Your task to perform on an android device: When is my next meeting? Image 0: 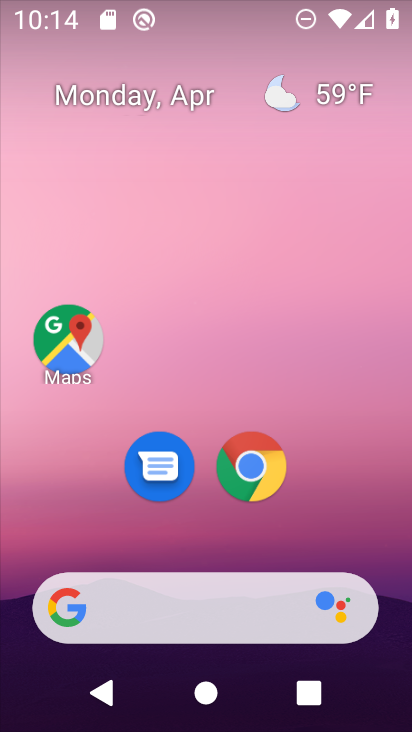
Step 0: drag from (129, 468) to (191, 25)
Your task to perform on an android device: When is my next meeting? Image 1: 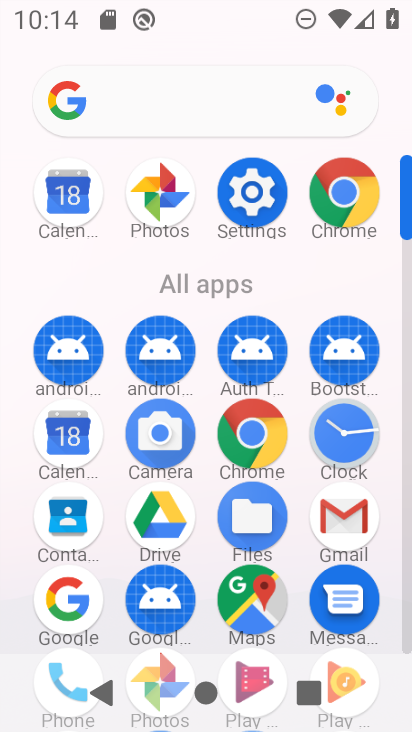
Step 1: click (76, 183)
Your task to perform on an android device: When is my next meeting? Image 2: 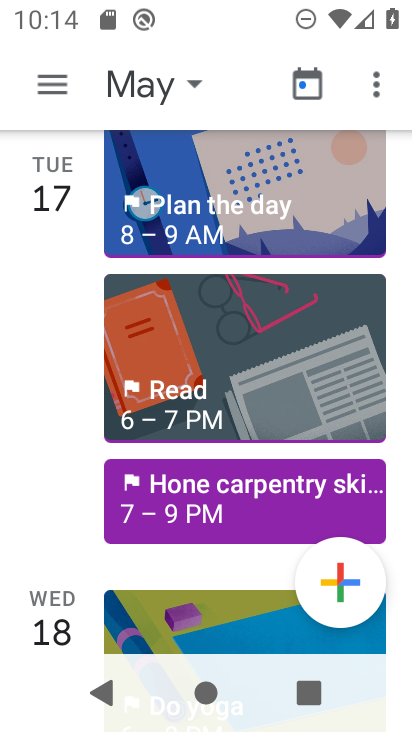
Step 2: click (173, 84)
Your task to perform on an android device: When is my next meeting? Image 3: 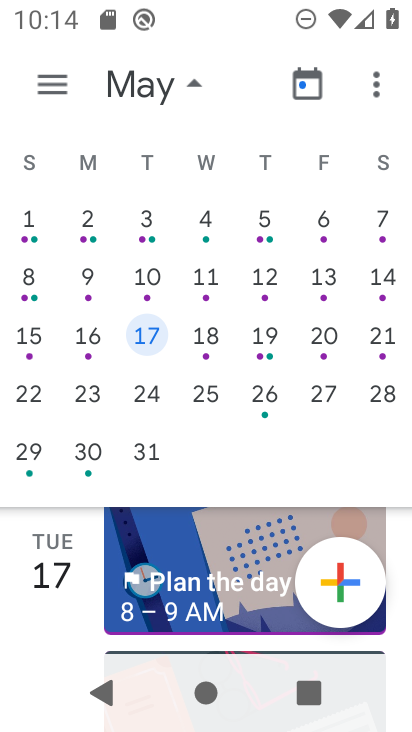
Step 3: drag from (38, 296) to (371, 320)
Your task to perform on an android device: When is my next meeting? Image 4: 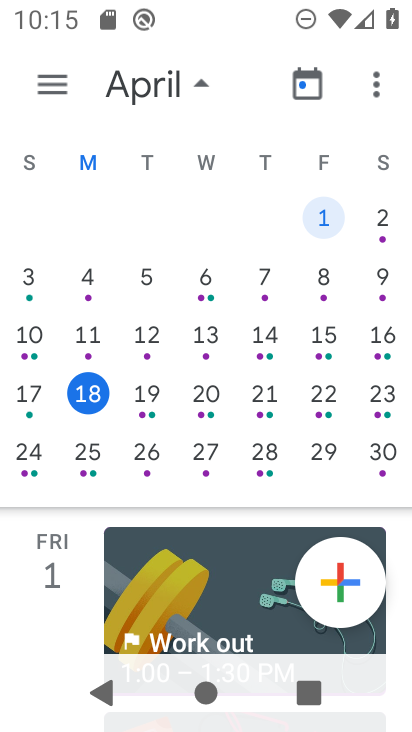
Step 4: click (83, 395)
Your task to perform on an android device: When is my next meeting? Image 5: 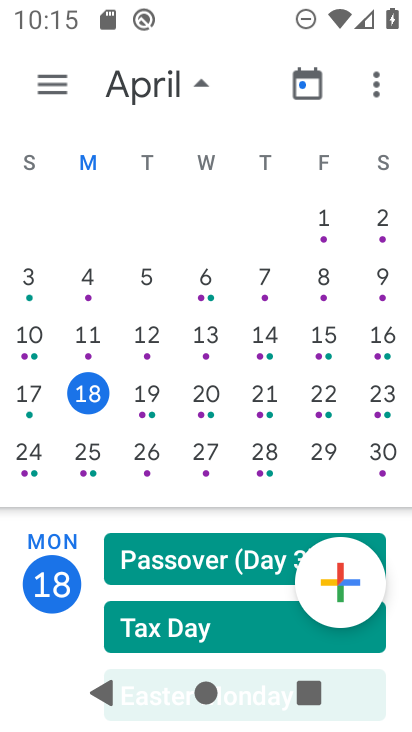
Step 5: task complete